Your task to perform on an android device: Open Chrome and go to the settings page Image 0: 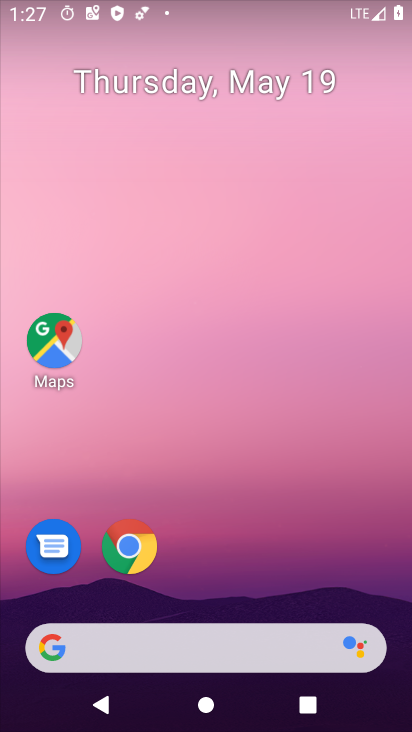
Step 0: click (130, 545)
Your task to perform on an android device: Open Chrome and go to the settings page Image 1: 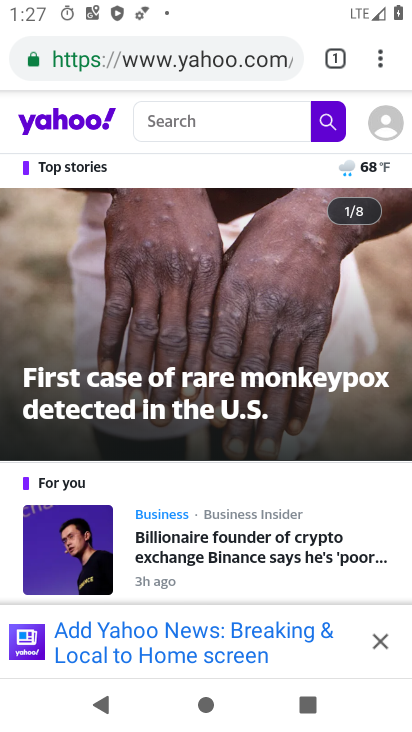
Step 1: click (375, 53)
Your task to perform on an android device: Open Chrome and go to the settings page Image 2: 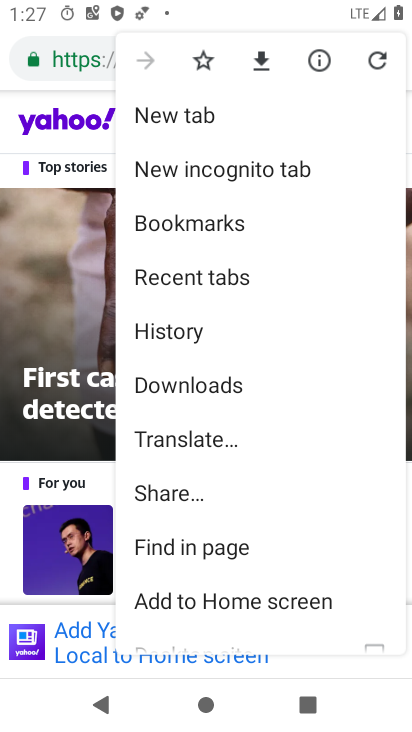
Step 2: drag from (176, 573) to (343, 27)
Your task to perform on an android device: Open Chrome and go to the settings page Image 3: 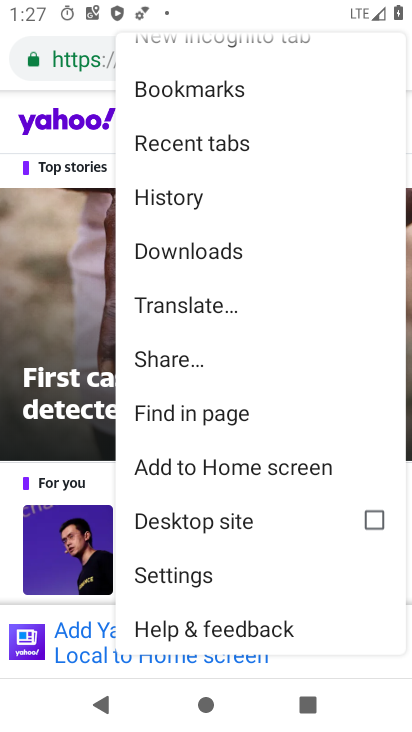
Step 3: click (153, 567)
Your task to perform on an android device: Open Chrome and go to the settings page Image 4: 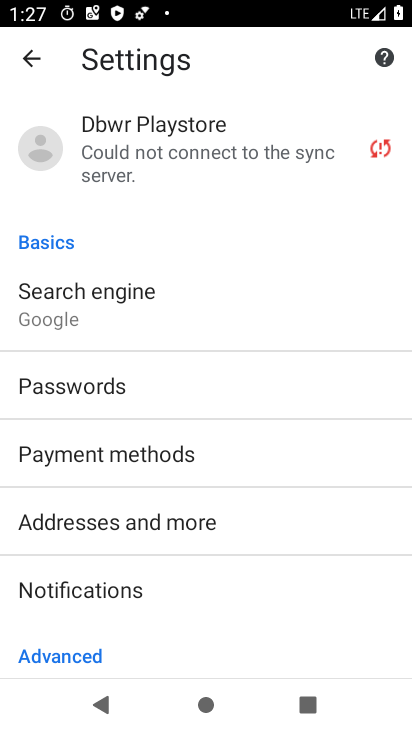
Step 4: task complete